Your task to perform on an android device: What's on Reddit Image 0: 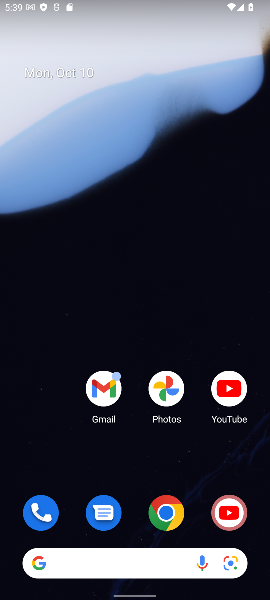
Step 0: click (110, 552)
Your task to perform on an android device: What's on Reddit Image 1: 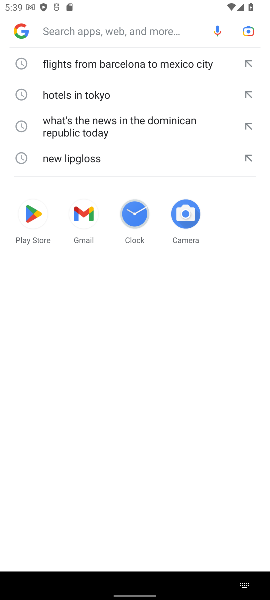
Step 1: type "What's on Reddit"
Your task to perform on an android device: What's on Reddit Image 2: 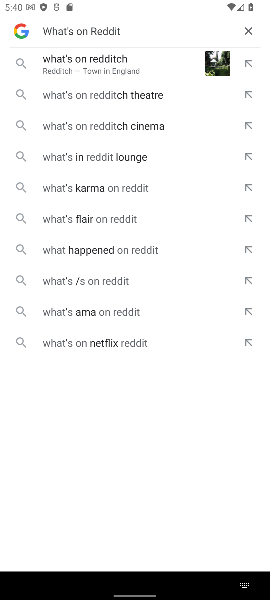
Step 2: click (154, 38)
Your task to perform on an android device: What's on Reddit Image 3: 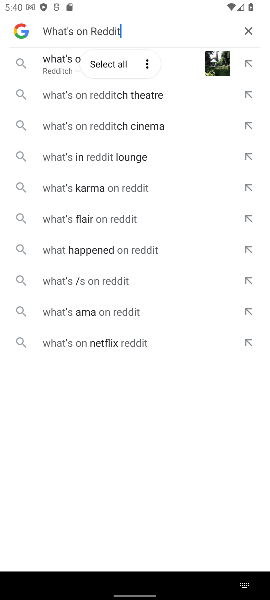
Step 3: click (109, 65)
Your task to perform on an android device: What's on Reddit Image 4: 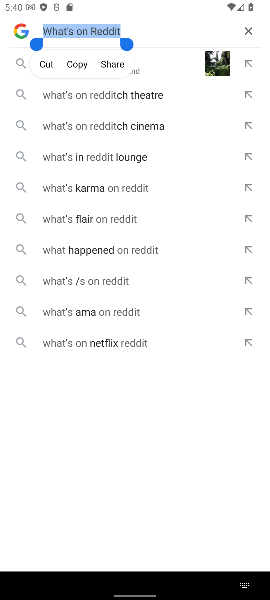
Step 4: click (133, 95)
Your task to perform on an android device: What's on Reddit Image 5: 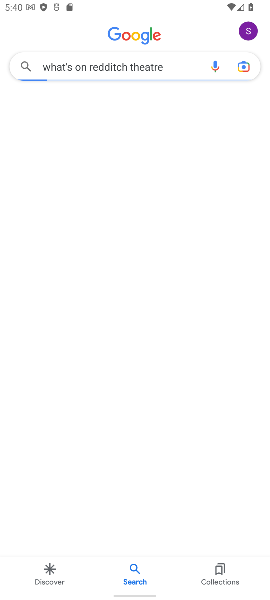
Step 5: task complete